Your task to perform on an android device: Do I have any events this weekend? Image 0: 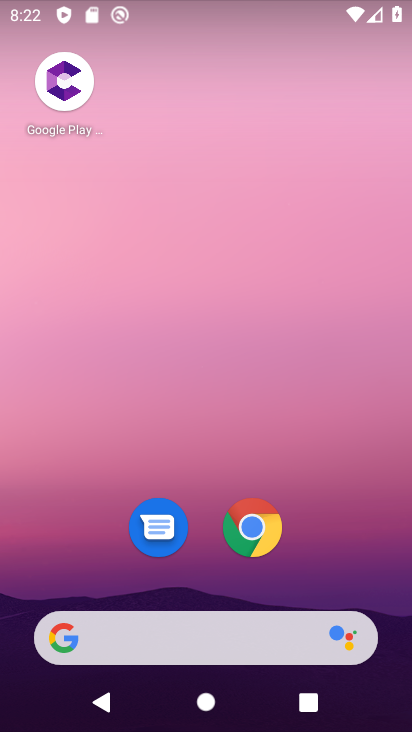
Step 0: drag from (210, 547) to (232, 157)
Your task to perform on an android device: Do I have any events this weekend? Image 1: 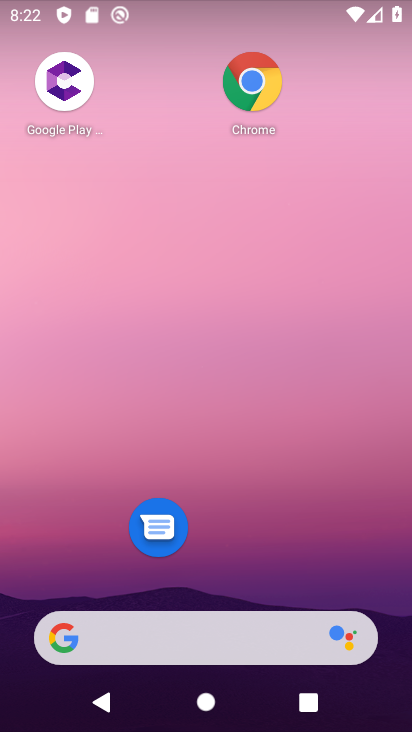
Step 1: drag from (221, 522) to (215, 65)
Your task to perform on an android device: Do I have any events this weekend? Image 2: 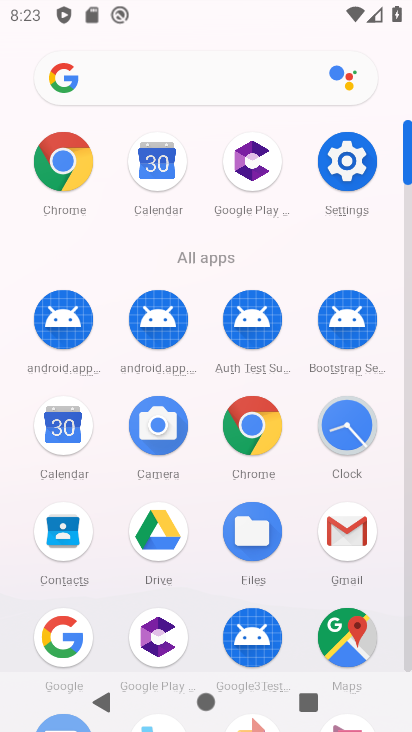
Step 2: click (66, 476)
Your task to perform on an android device: Do I have any events this weekend? Image 3: 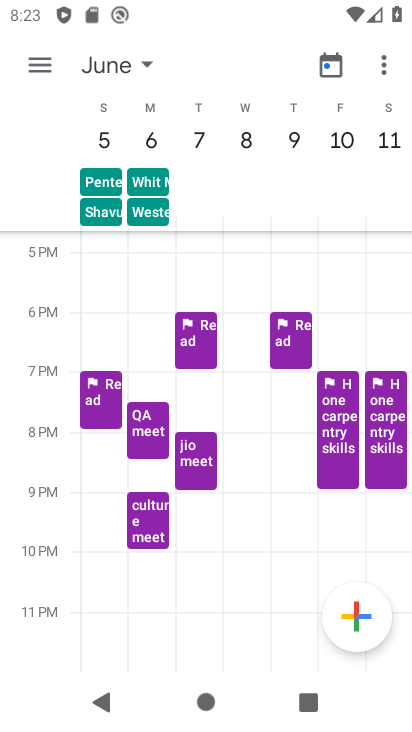
Step 3: click (110, 64)
Your task to perform on an android device: Do I have any events this weekend? Image 4: 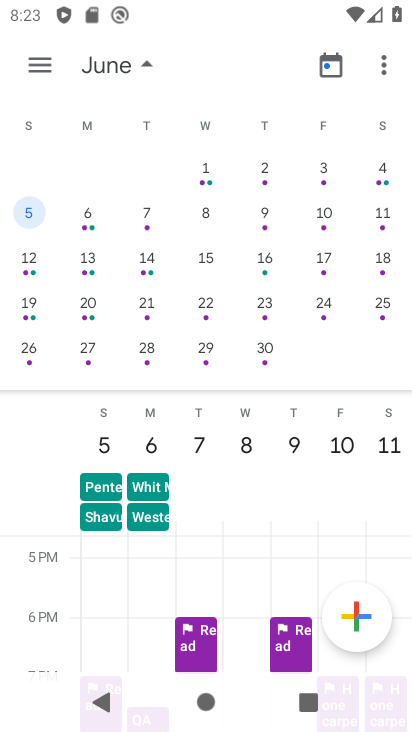
Step 4: drag from (70, 272) to (399, 210)
Your task to perform on an android device: Do I have any events this weekend? Image 5: 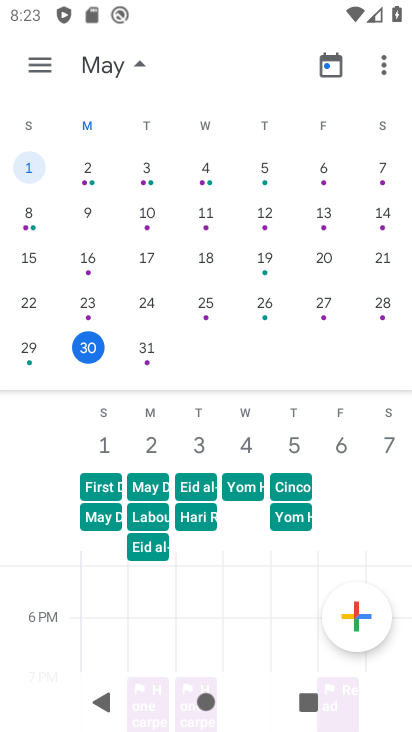
Step 5: click (31, 356)
Your task to perform on an android device: Do I have any events this weekend? Image 6: 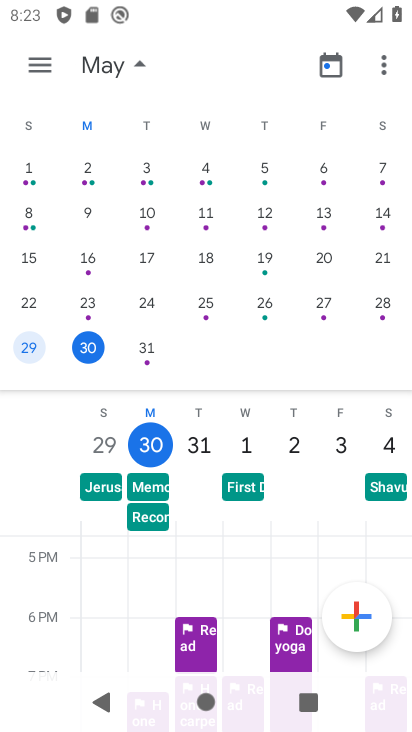
Step 6: task complete